Your task to perform on an android device: What is the recent news? Image 0: 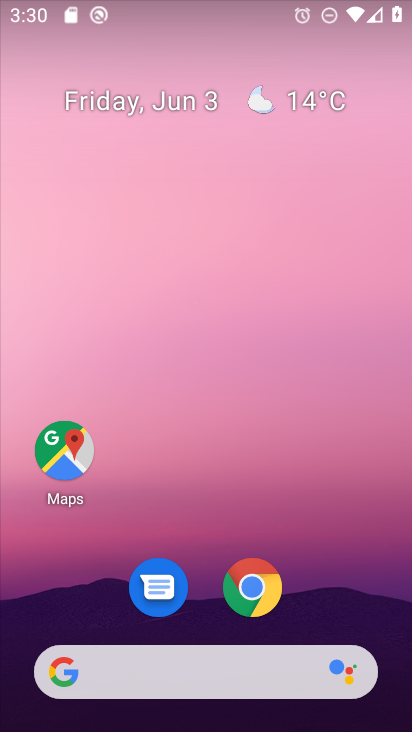
Step 0: drag from (5, 312) to (286, 318)
Your task to perform on an android device: What is the recent news? Image 1: 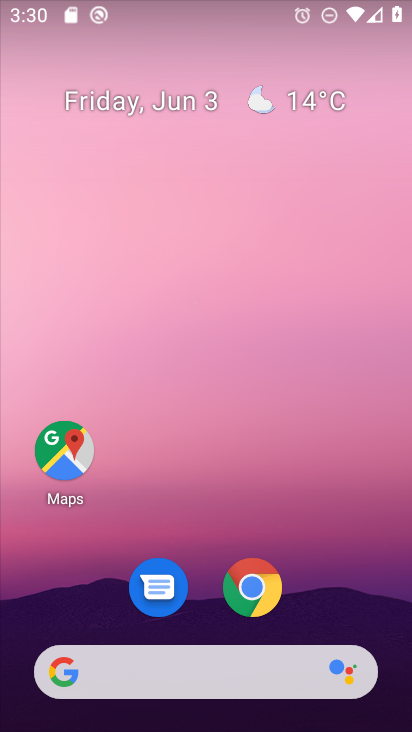
Step 1: task complete